Your task to perform on an android device: Open sound settings Image 0: 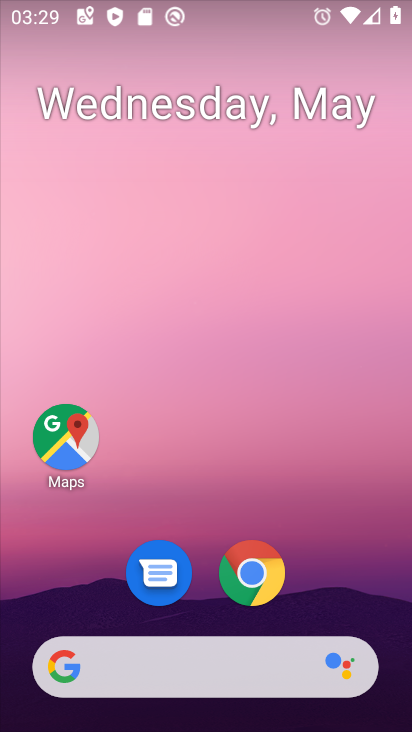
Step 0: drag from (238, 723) to (233, 251)
Your task to perform on an android device: Open sound settings Image 1: 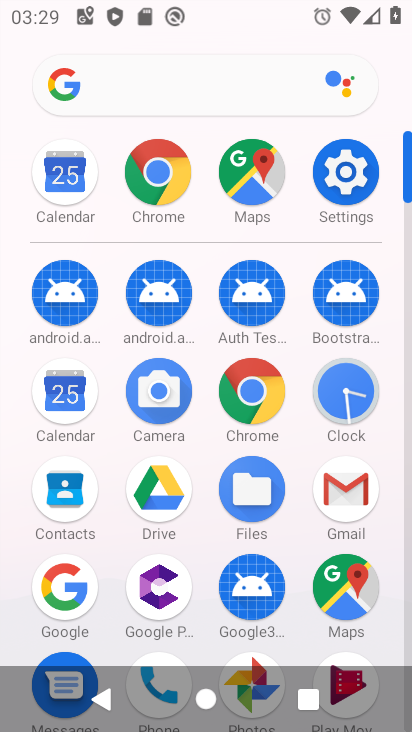
Step 1: click (348, 170)
Your task to perform on an android device: Open sound settings Image 2: 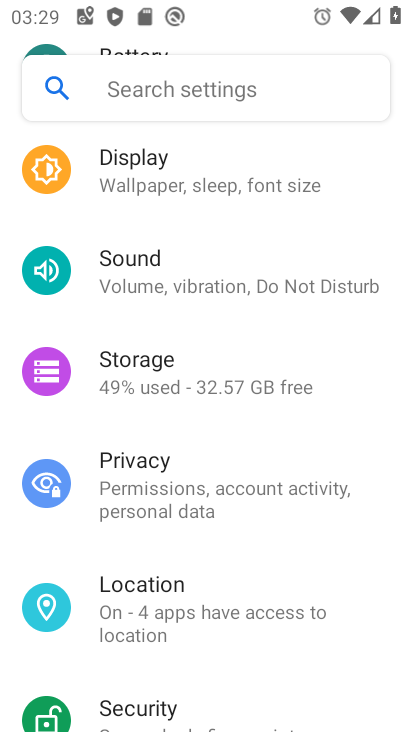
Step 2: click (138, 277)
Your task to perform on an android device: Open sound settings Image 3: 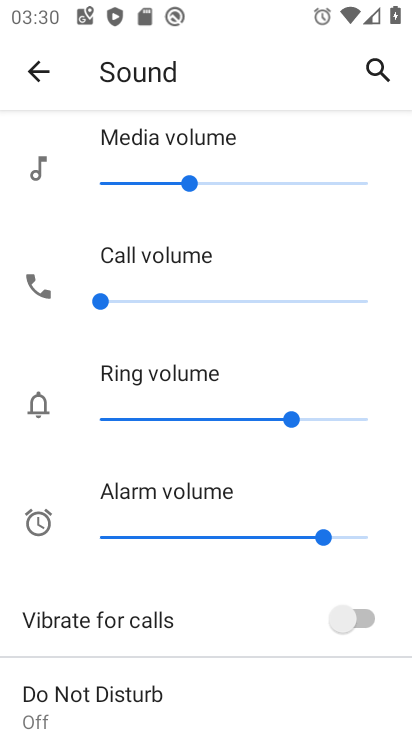
Step 3: task complete